Your task to perform on an android device: clear all cookies in the chrome app Image 0: 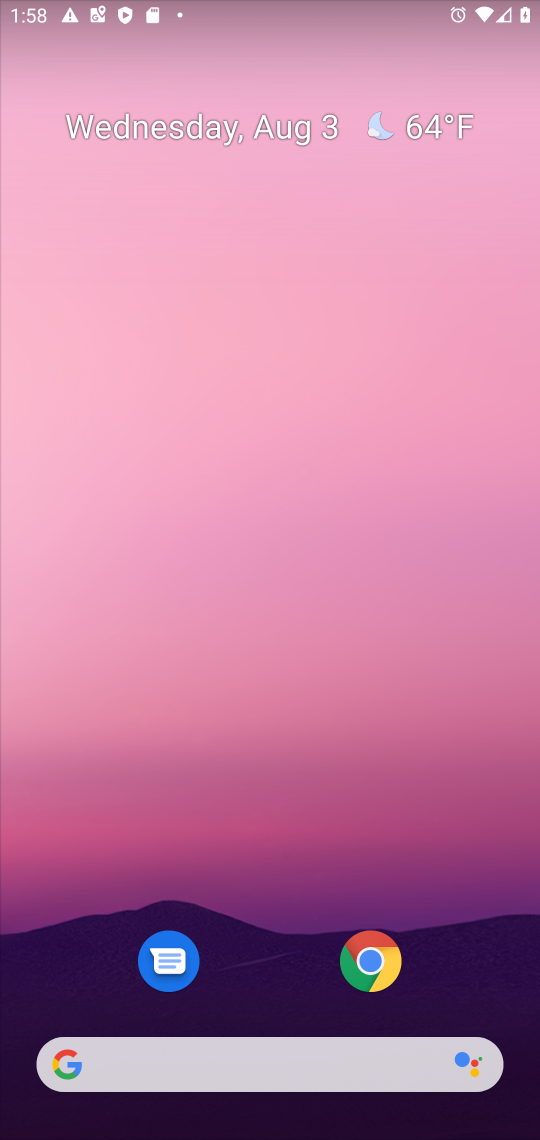
Step 0: click (378, 968)
Your task to perform on an android device: clear all cookies in the chrome app Image 1: 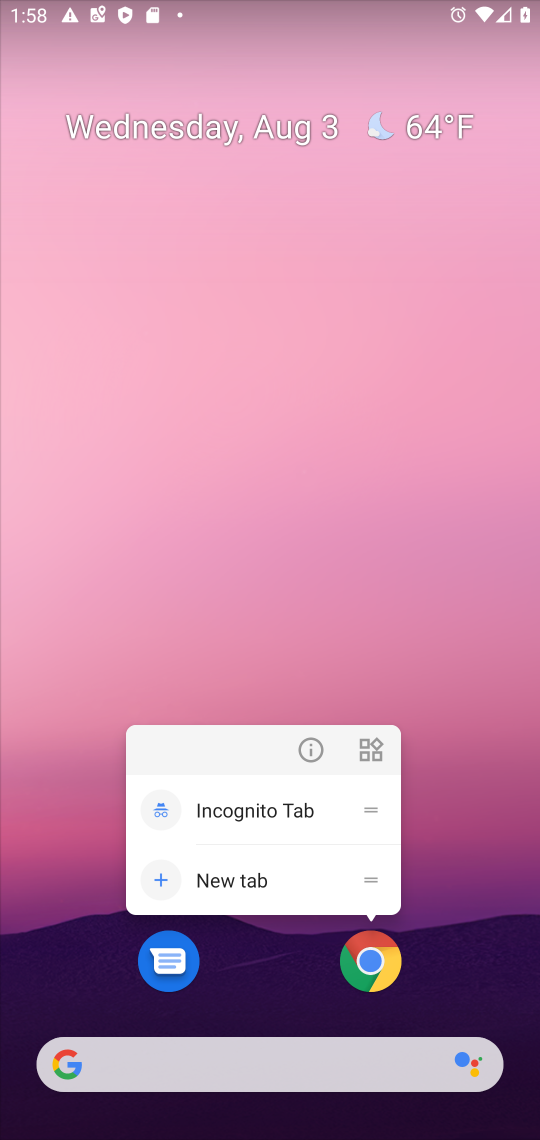
Step 1: click (378, 968)
Your task to perform on an android device: clear all cookies in the chrome app Image 2: 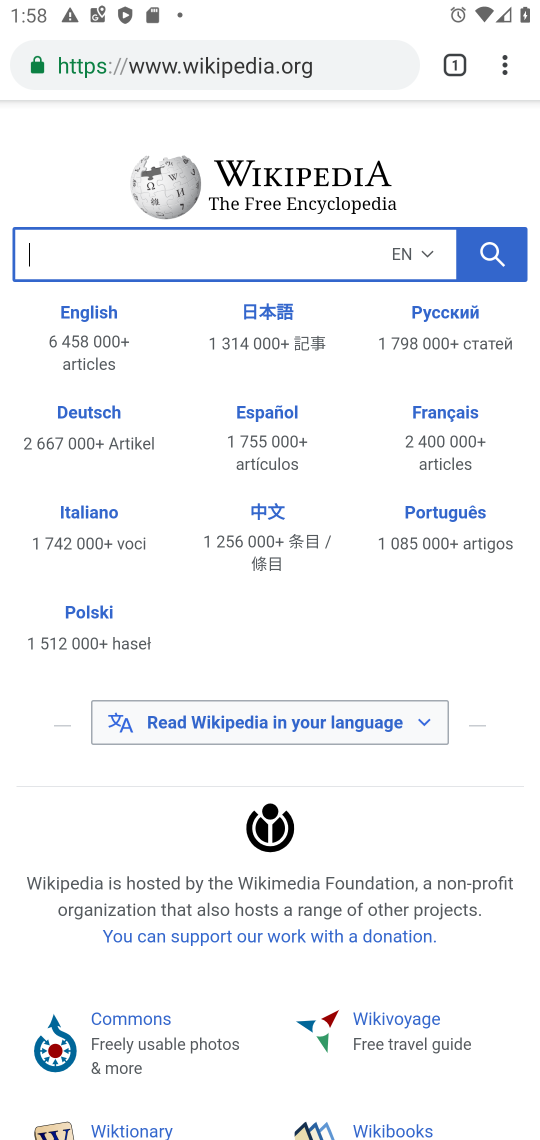
Step 2: click (505, 61)
Your task to perform on an android device: clear all cookies in the chrome app Image 3: 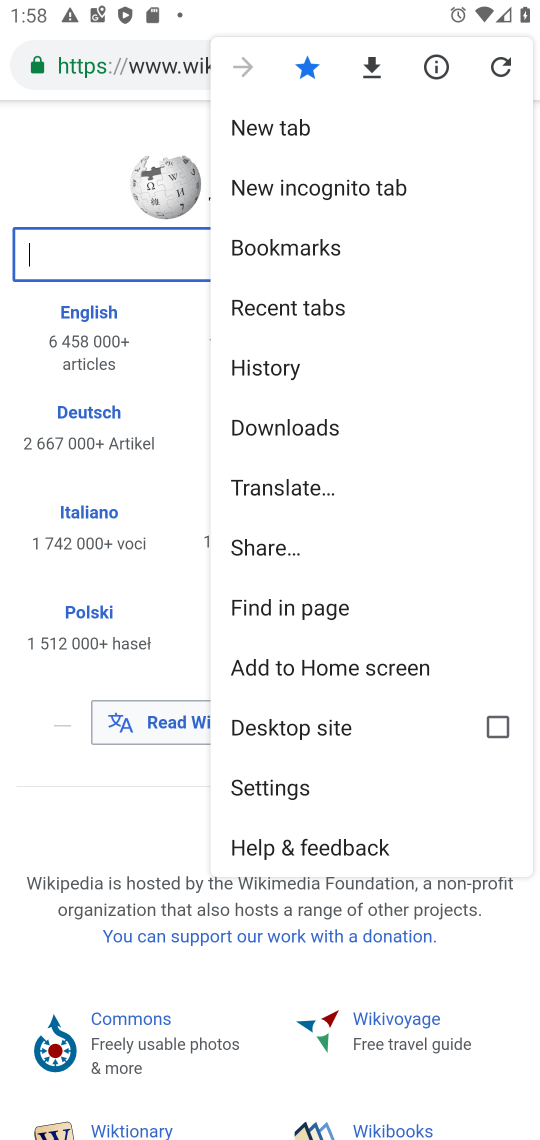
Step 3: click (278, 793)
Your task to perform on an android device: clear all cookies in the chrome app Image 4: 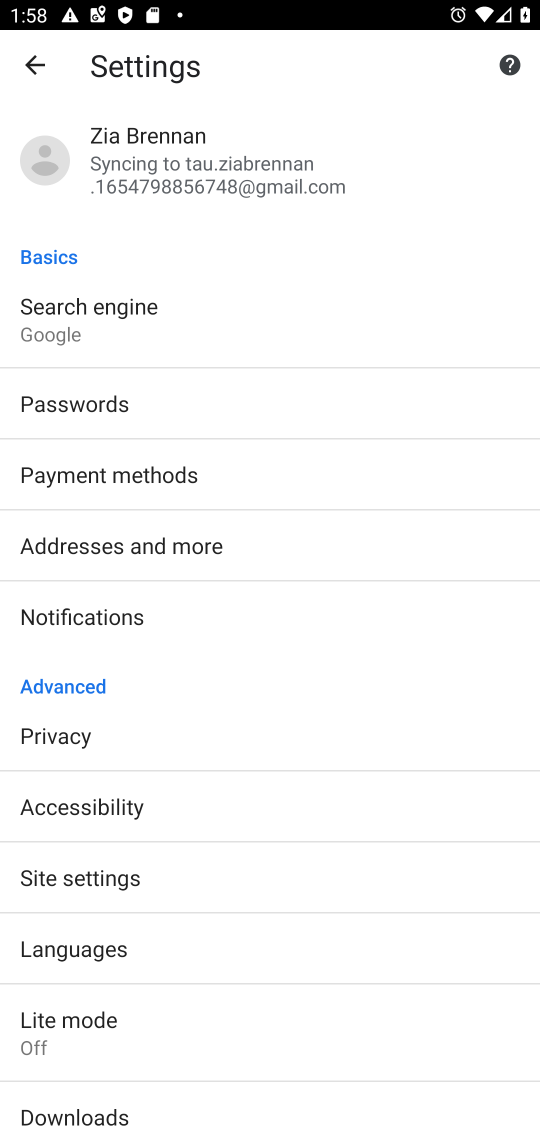
Step 4: click (63, 743)
Your task to perform on an android device: clear all cookies in the chrome app Image 5: 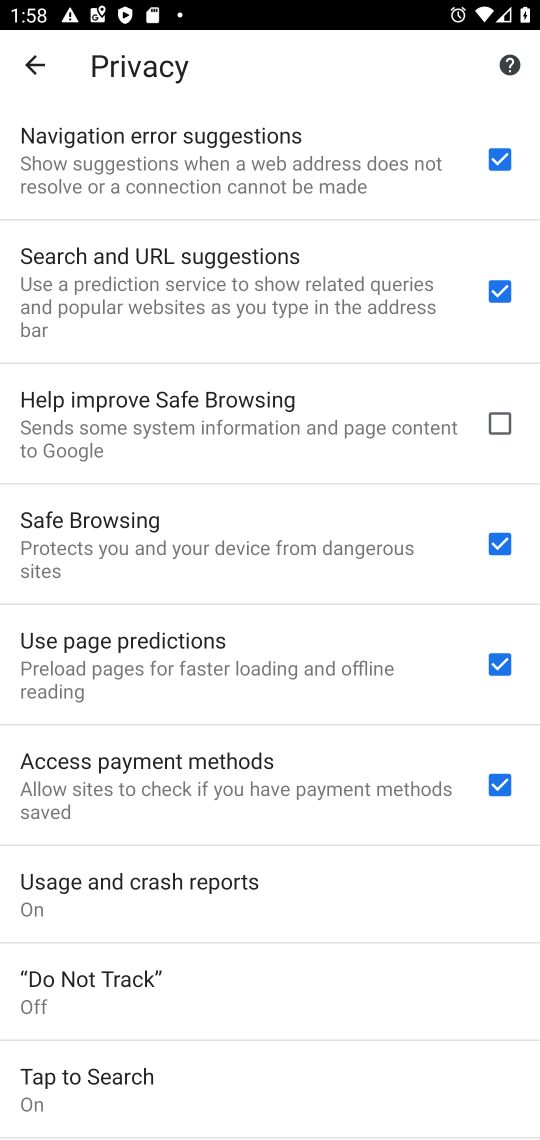
Step 5: drag from (275, 943) to (240, 353)
Your task to perform on an android device: clear all cookies in the chrome app Image 6: 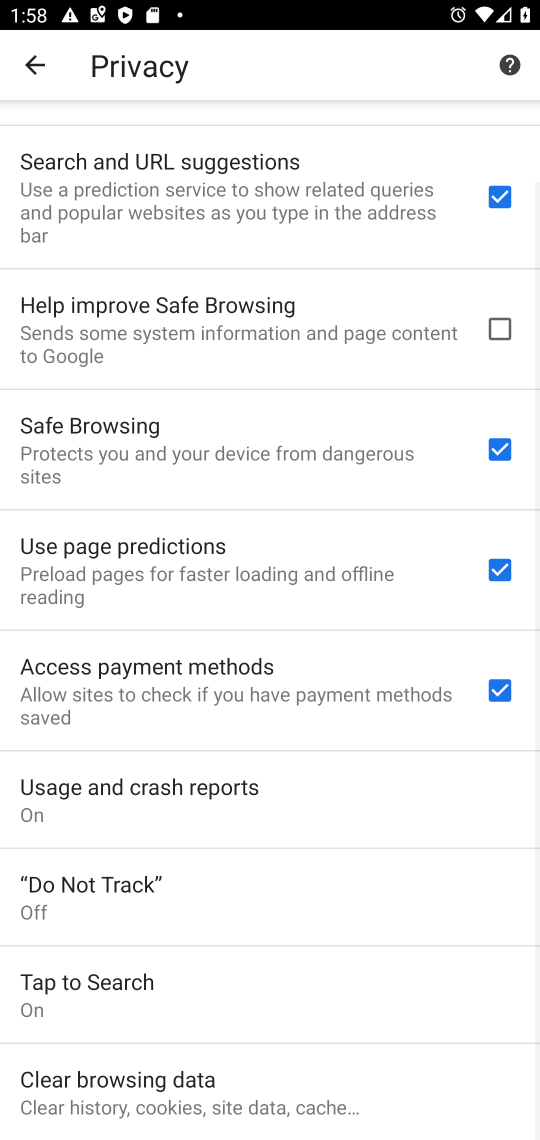
Step 6: click (111, 1084)
Your task to perform on an android device: clear all cookies in the chrome app Image 7: 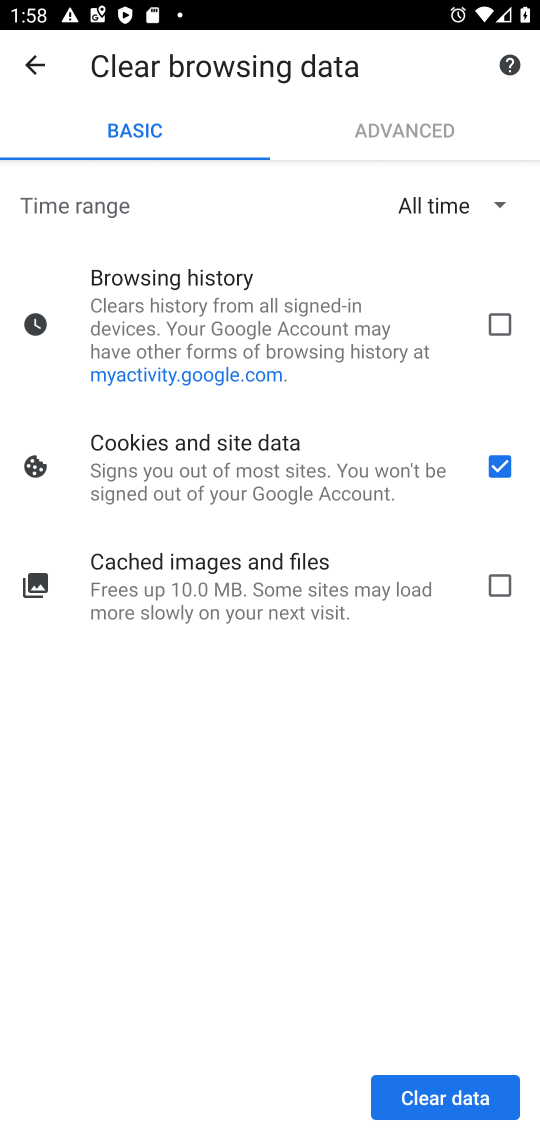
Step 7: click (448, 1097)
Your task to perform on an android device: clear all cookies in the chrome app Image 8: 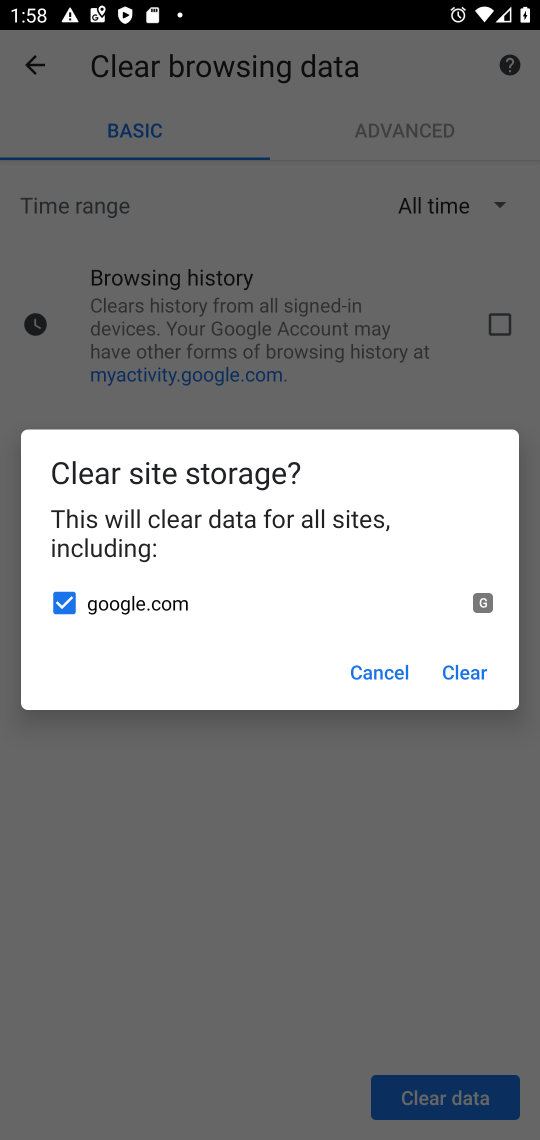
Step 8: click (461, 678)
Your task to perform on an android device: clear all cookies in the chrome app Image 9: 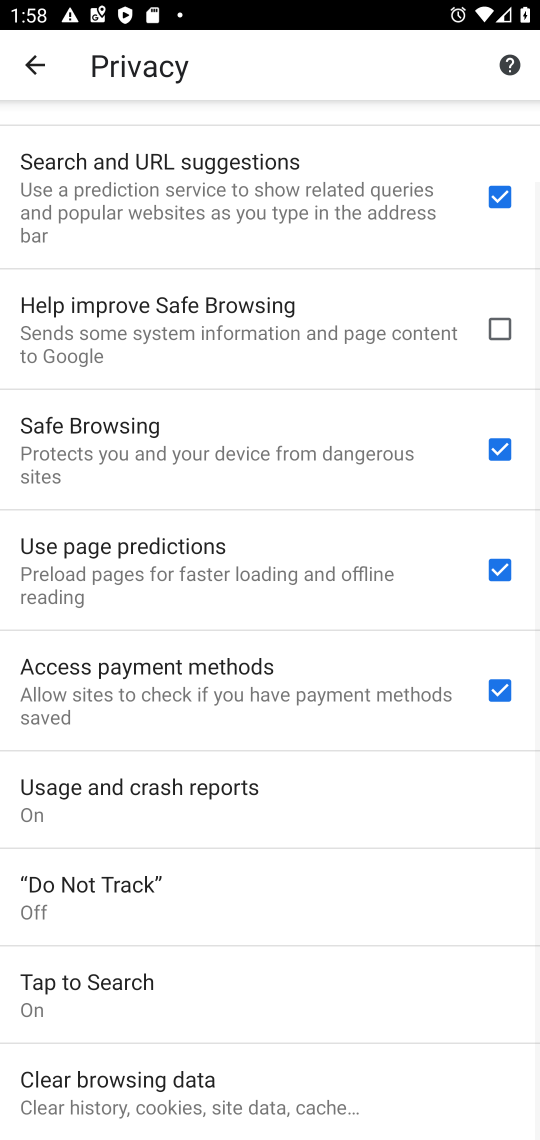
Step 9: task complete